Your task to perform on an android device: turn notification dots on Image 0: 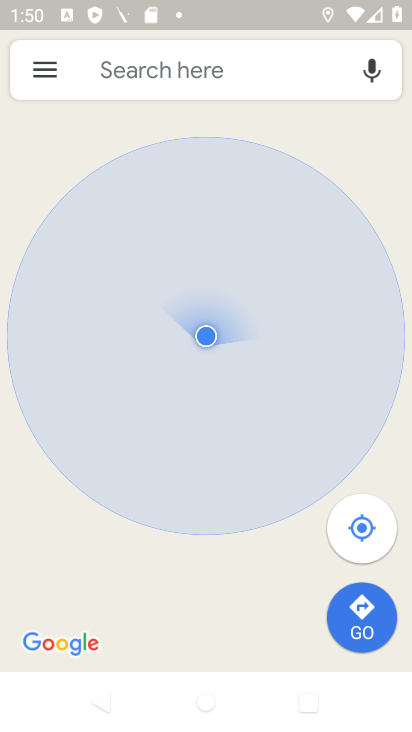
Step 0: press home button
Your task to perform on an android device: turn notification dots on Image 1: 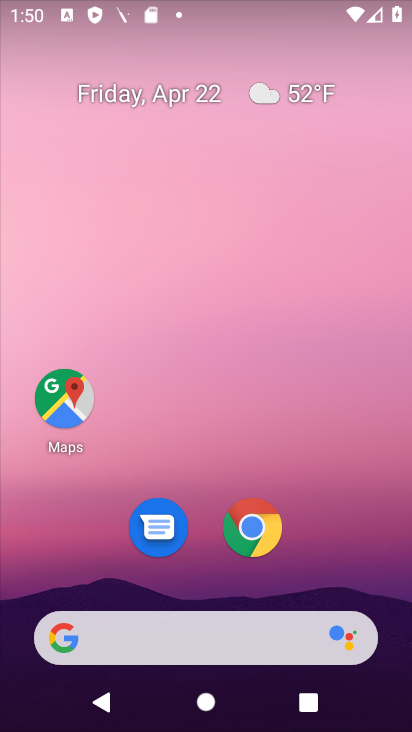
Step 1: drag from (354, 527) to (390, 109)
Your task to perform on an android device: turn notification dots on Image 2: 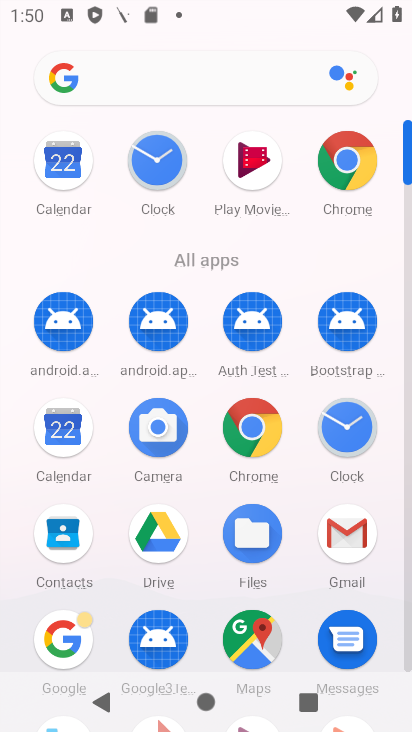
Step 2: drag from (396, 559) to (403, 265)
Your task to perform on an android device: turn notification dots on Image 3: 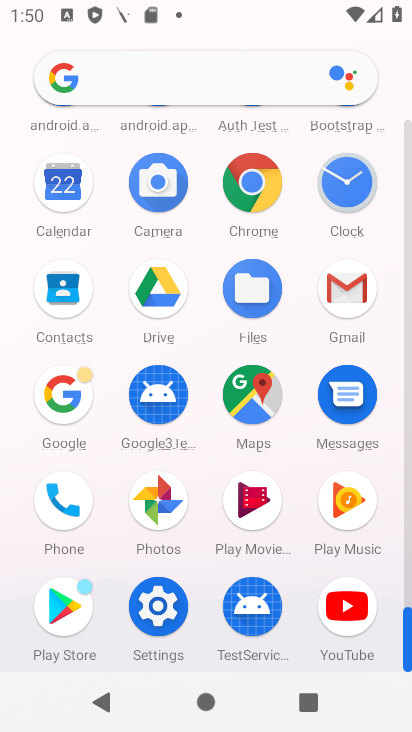
Step 3: click (161, 616)
Your task to perform on an android device: turn notification dots on Image 4: 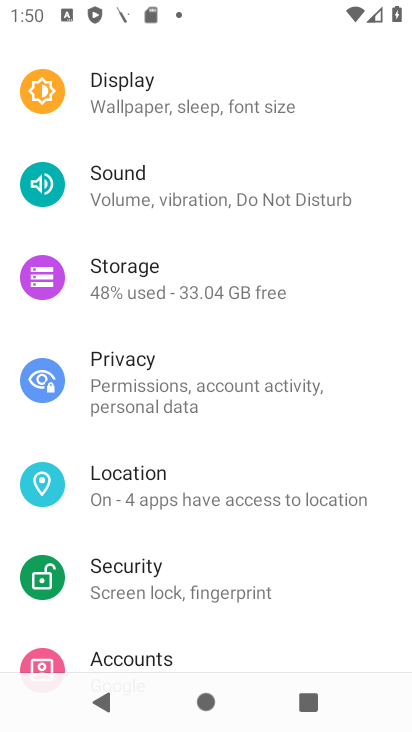
Step 4: drag from (200, 150) to (158, 462)
Your task to perform on an android device: turn notification dots on Image 5: 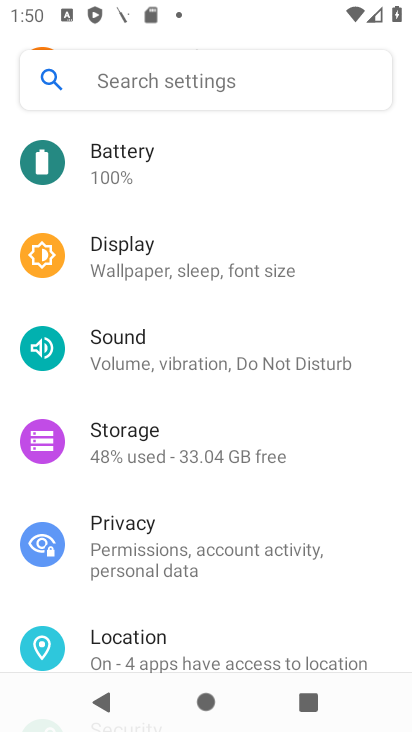
Step 5: drag from (211, 265) to (206, 544)
Your task to perform on an android device: turn notification dots on Image 6: 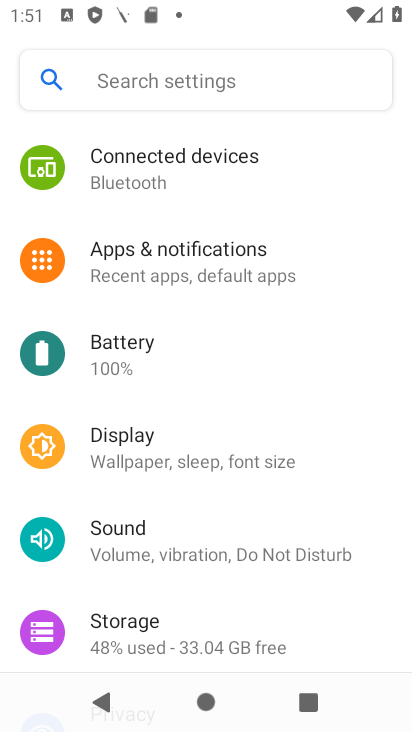
Step 6: click (222, 275)
Your task to perform on an android device: turn notification dots on Image 7: 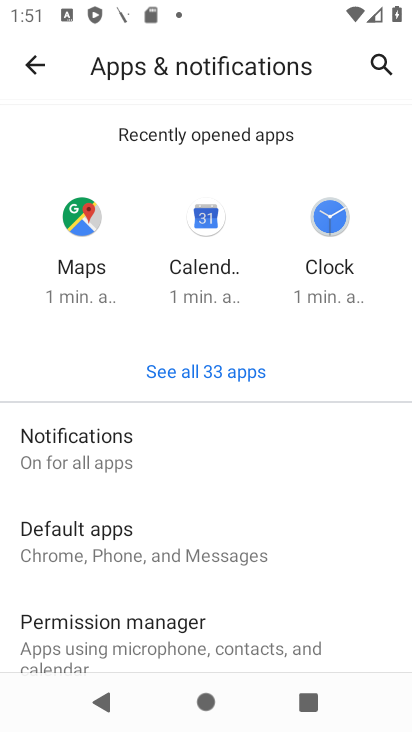
Step 7: click (79, 445)
Your task to perform on an android device: turn notification dots on Image 8: 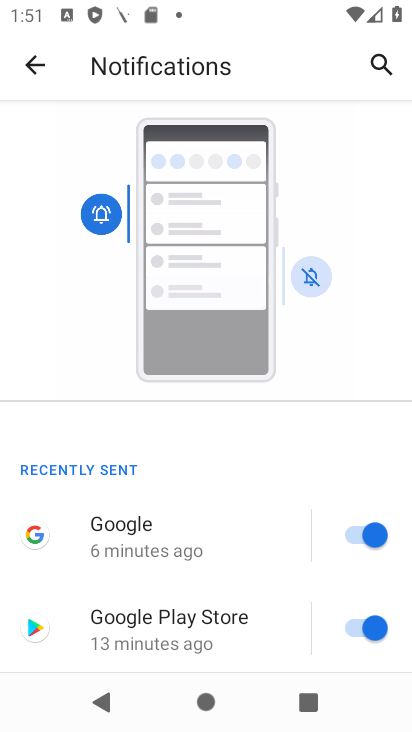
Step 8: drag from (89, 525) to (142, 191)
Your task to perform on an android device: turn notification dots on Image 9: 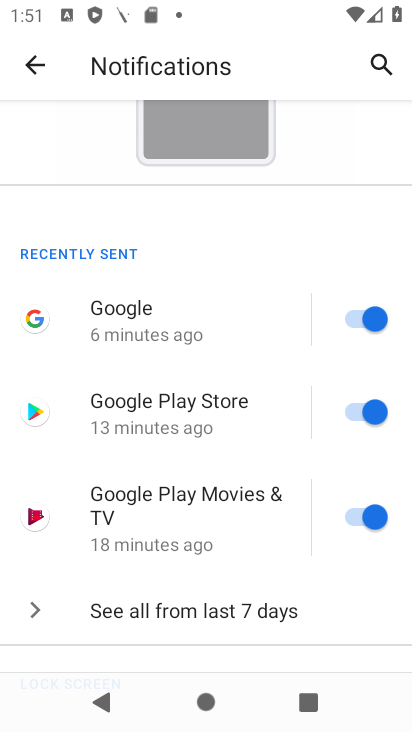
Step 9: drag from (224, 437) to (219, 193)
Your task to perform on an android device: turn notification dots on Image 10: 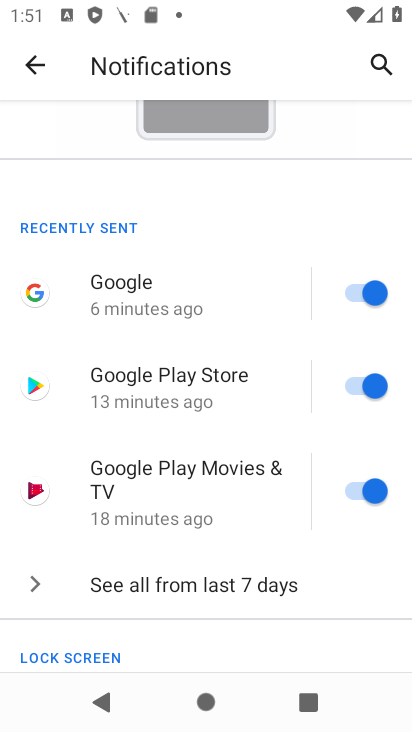
Step 10: drag from (261, 471) to (321, 218)
Your task to perform on an android device: turn notification dots on Image 11: 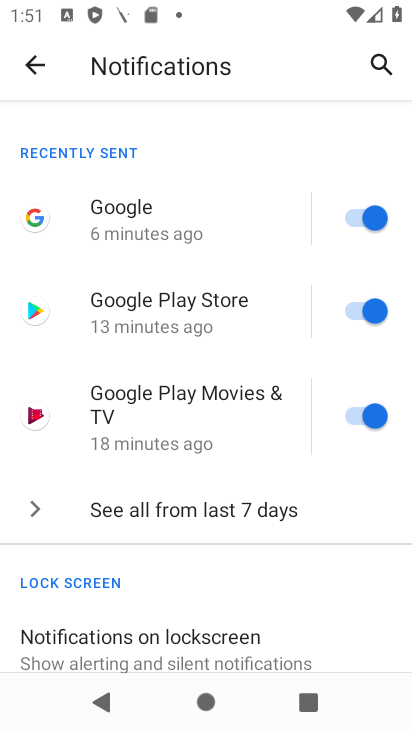
Step 11: drag from (243, 556) to (315, 215)
Your task to perform on an android device: turn notification dots on Image 12: 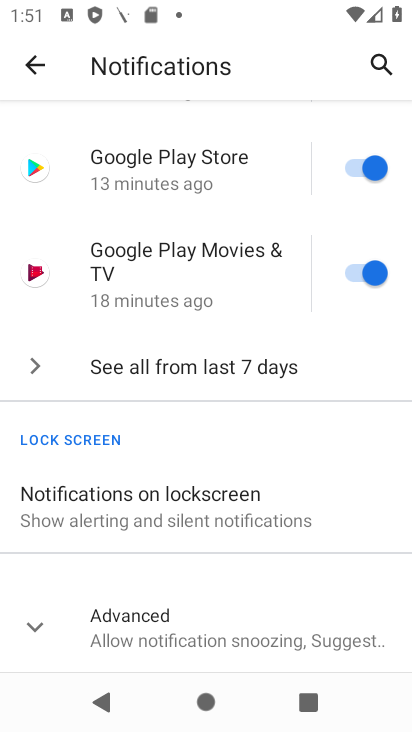
Step 12: drag from (149, 531) to (241, 170)
Your task to perform on an android device: turn notification dots on Image 13: 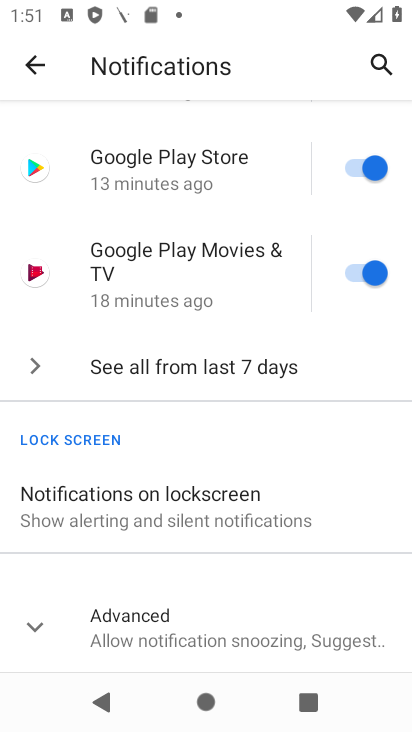
Step 13: click (178, 622)
Your task to perform on an android device: turn notification dots on Image 14: 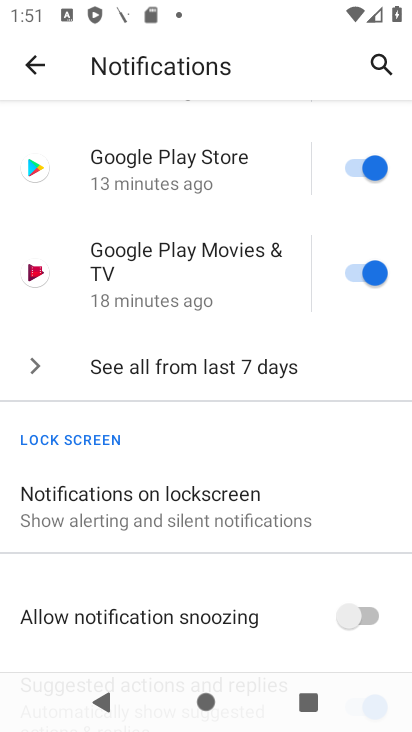
Step 14: task complete